Your task to perform on an android device: turn off wifi Image 0: 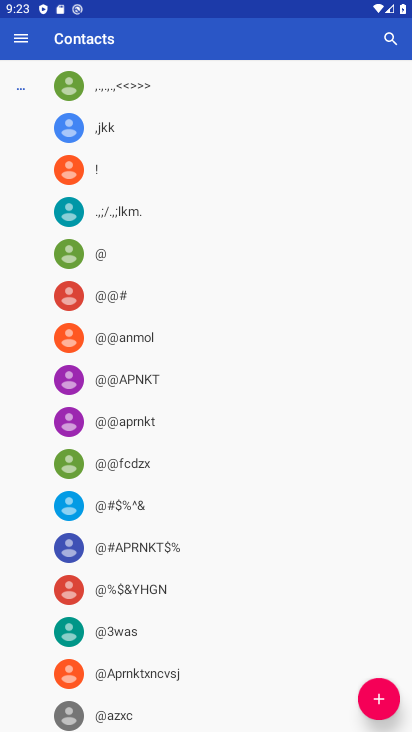
Step 0: press back button
Your task to perform on an android device: turn off wifi Image 1: 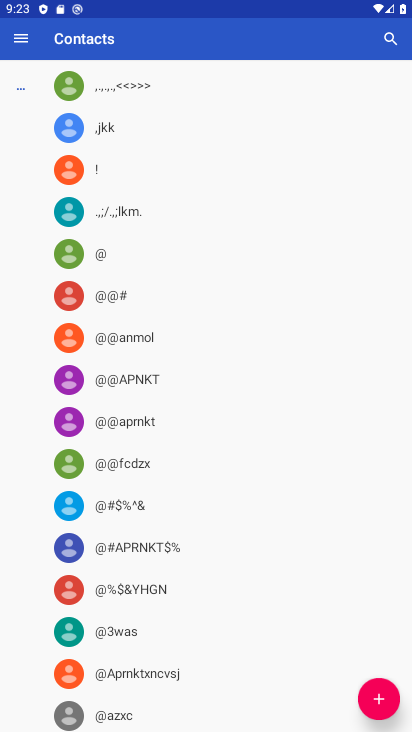
Step 1: press back button
Your task to perform on an android device: turn off wifi Image 2: 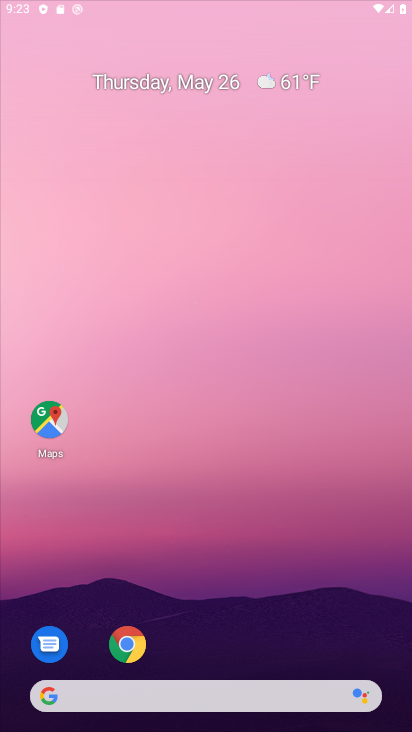
Step 2: press back button
Your task to perform on an android device: turn off wifi Image 3: 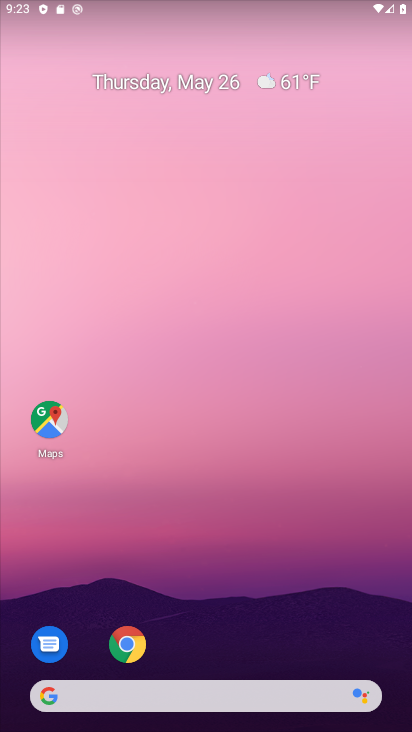
Step 3: press back button
Your task to perform on an android device: turn off wifi Image 4: 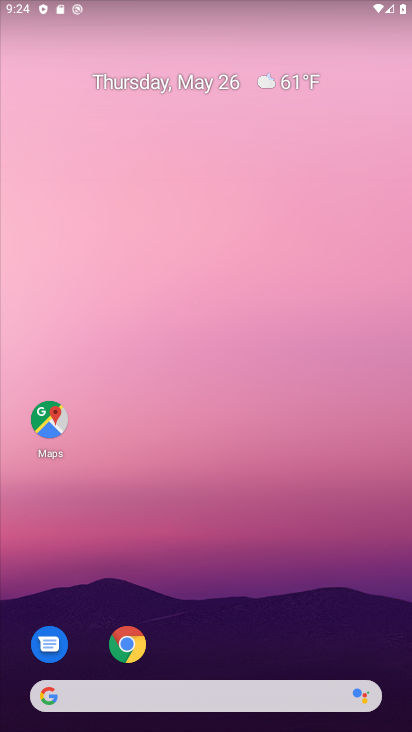
Step 4: drag from (285, 637) to (240, 122)
Your task to perform on an android device: turn off wifi Image 5: 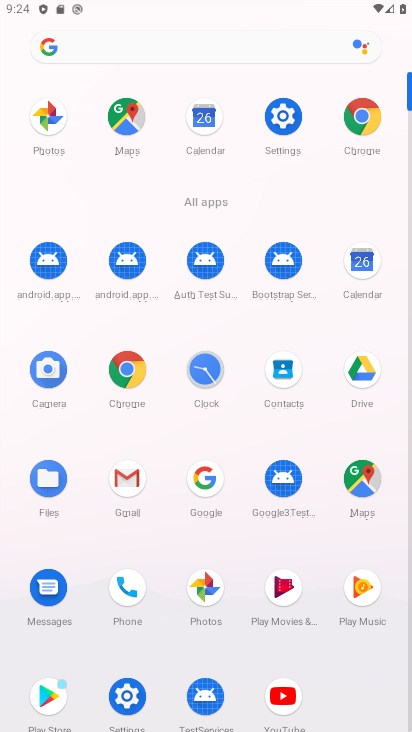
Step 5: click (279, 126)
Your task to perform on an android device: turn off wifi Image 6: 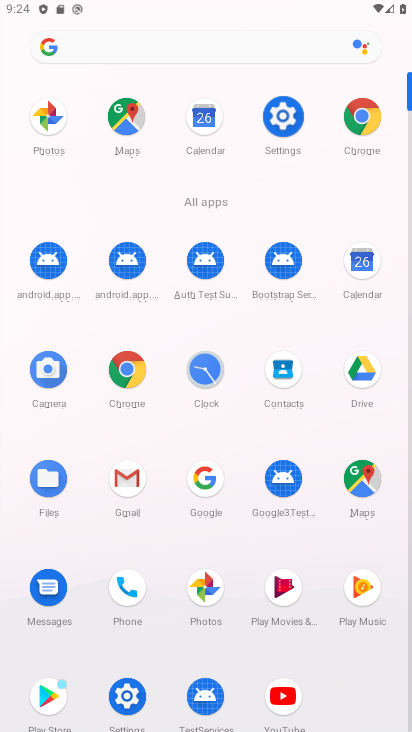
Step 6: click (277, 122)
Your task to perform on an android device: turn off wifi Image 7: 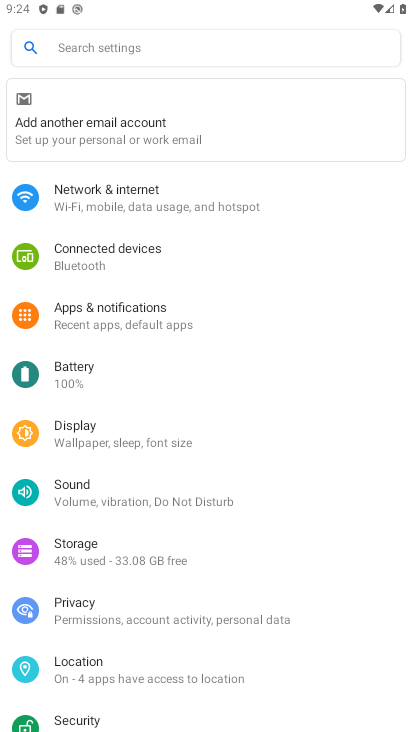
Step 7: click (87, 197)
Your task to perform on an android device: turn off wifi Image 8: 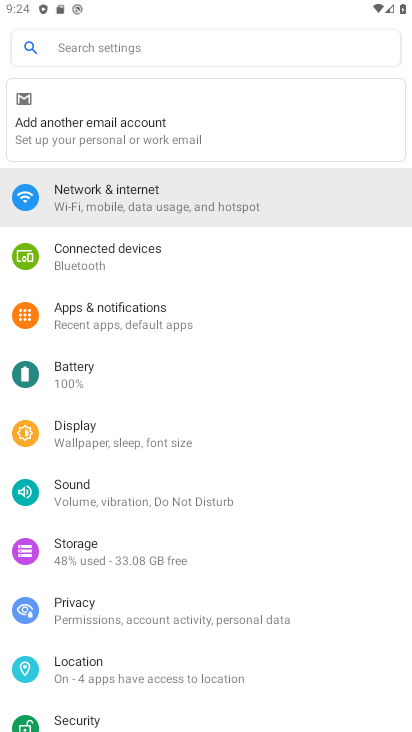
Step 8: click (91, 201)
Your task to perform on an android device: turn off wifi Image 9: 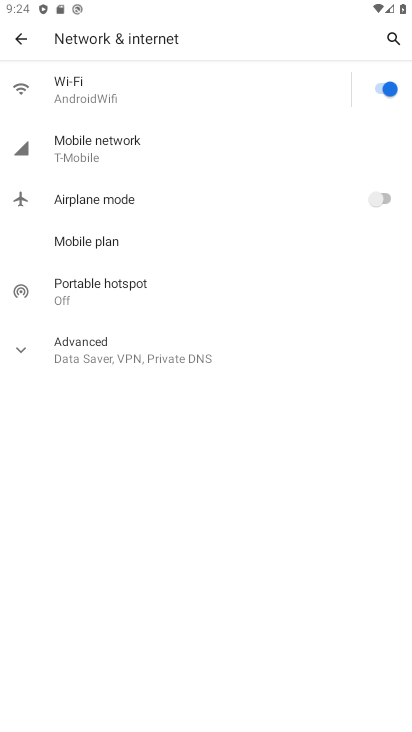
Step 9: click (390, 86)
Your task to perform on an android device: turn off wifi Image 10: 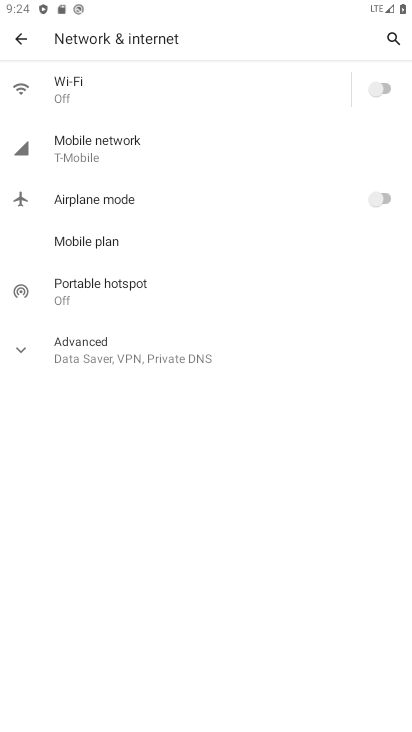
Step 10: task complete